Your task to perform on an android device: toggle wifi Image 0: 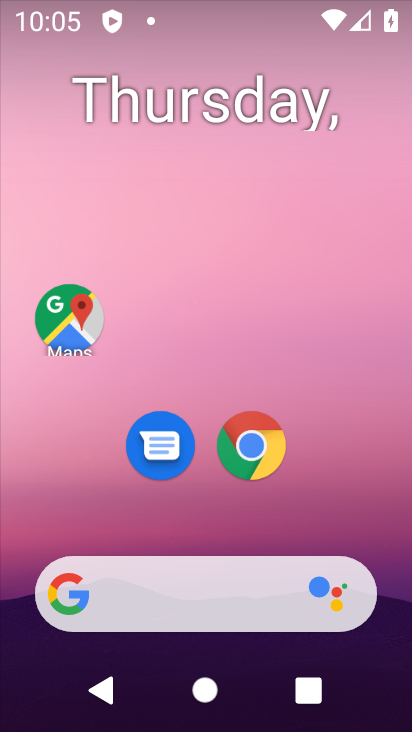
Step 0: drag from (338, 528) to (264, 124)
Your task to perform on an android device: toggle wifi Image 1: 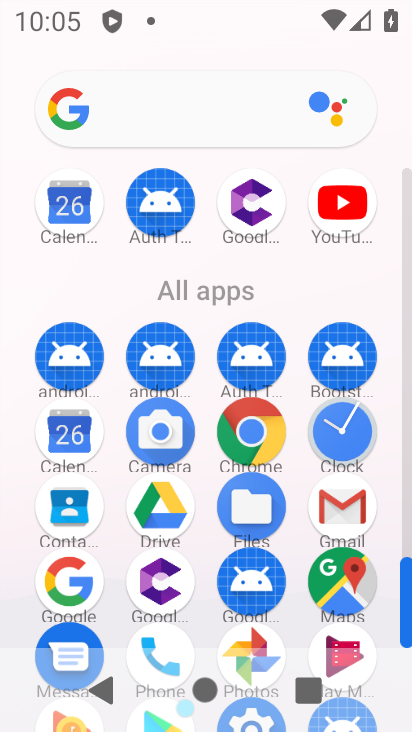
Step 1: drag from (392, 537) to (385, 327)
Your task to perform on an android device: toggle wifi Image 2: 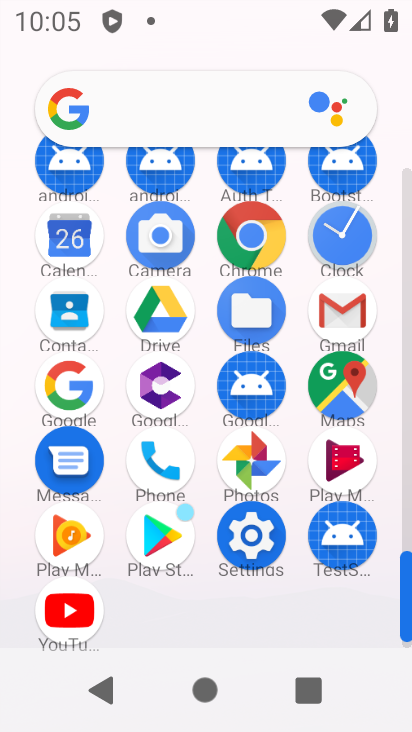
Step 2: click (258, 545)
Your task to perform on an android device: toggle wifi Image 3: 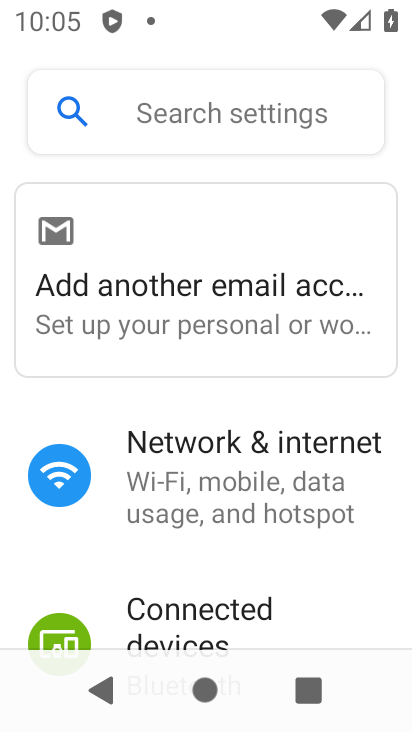
Step 3: click (256, 499)
Your task to perform on an android device: toggle wifi Image 4: 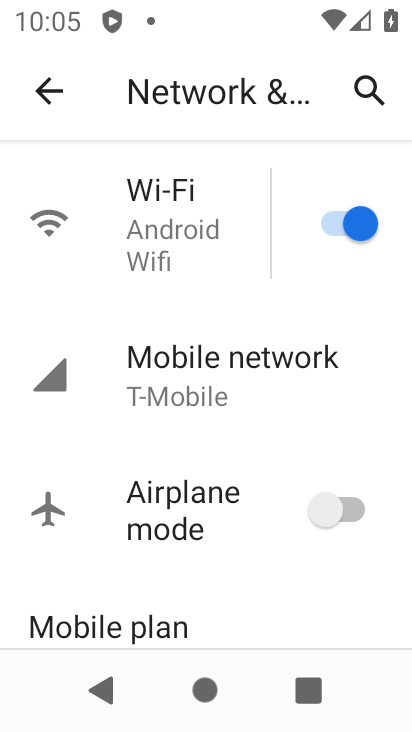
Step 4: click (342, 221)
Your task to perform on an android device: toggle wifi Image 5: 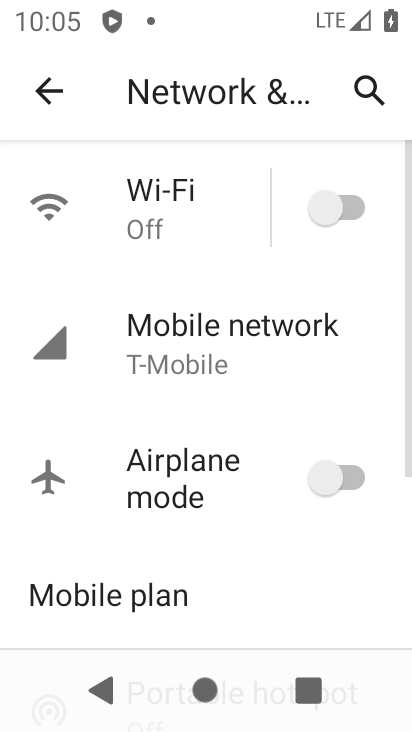
Step 5: task complete